Your task to perform on an android device: turn on location history Image 0: 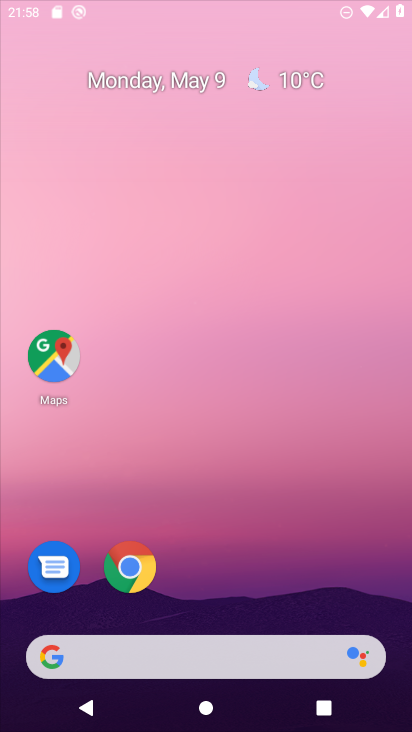
Step 0: drag from (297, 500) to (312, 43)
Your task to perform on an android device: turn on location history Image 1: 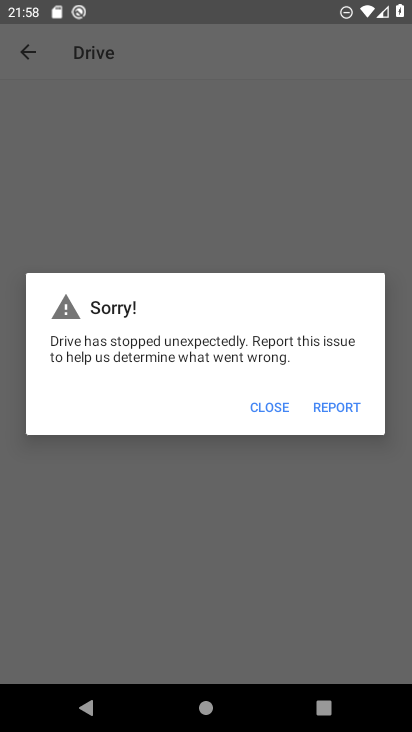
Step 1: press home button
Your task to perform on an android device: turn on location history Image 2: 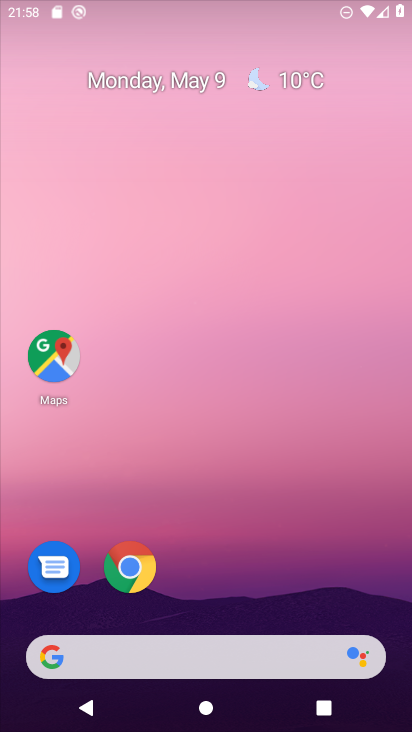
Step 2: drag from (217, 501) to (250, 59)
Your task to perform on an android device: turn on location history Image 3: 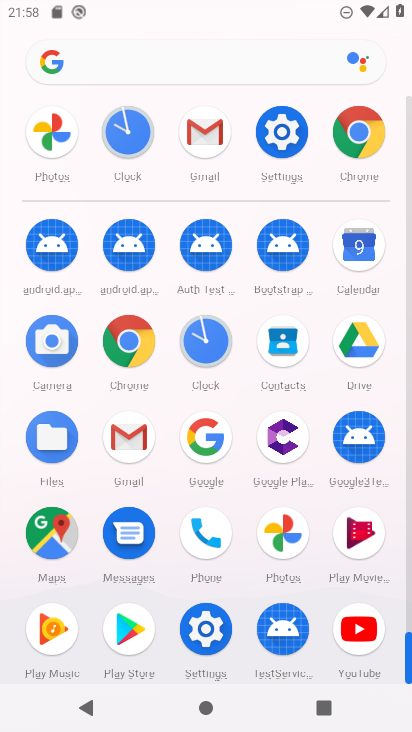
Step 3: click (288, 136)
Your task to perform on an android device: turn on location history Image 4: 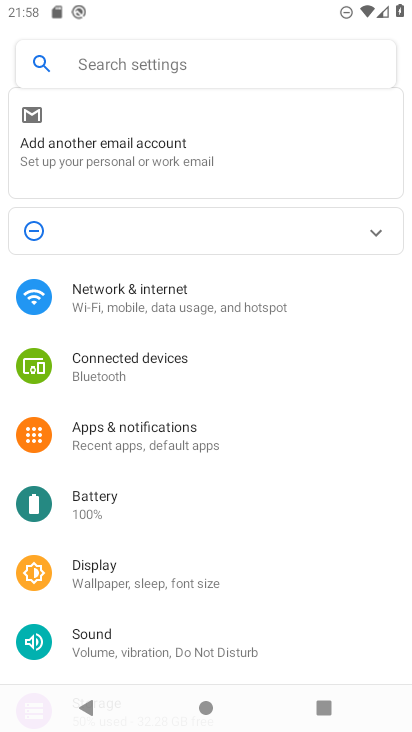
Step 4: drag from (240, 552) to (250, 91)
Your task to perform on an android device: turn on location history Image 5: 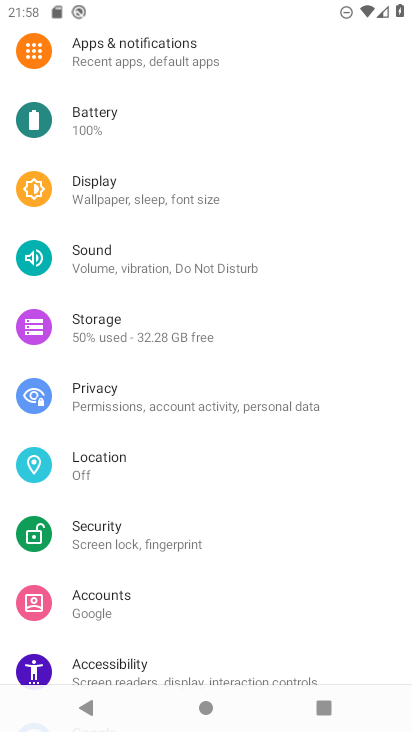
Step 5: click (131, 465)
Your task to perform on an android device: turn on location history Image 6: 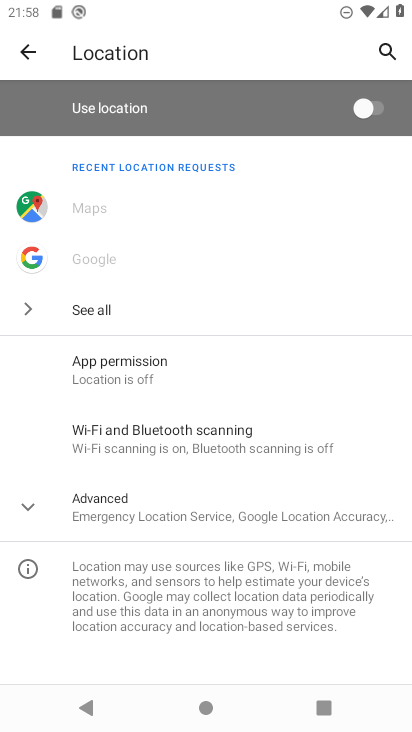
Step 6: click (25, 497)
Your task to perform on an android device: turn on location history Image 7: 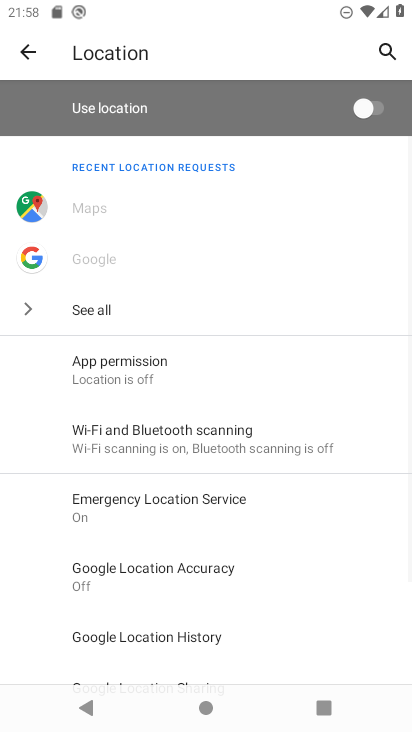
Step 7: drag from (225, 606) to (289, 312)
Your task to perform on an android device: turn on location history Image 8: 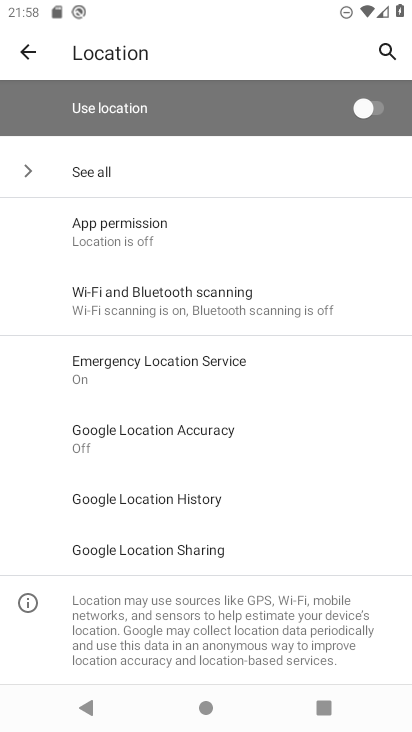
Step 8: click (179, 498)
Your task to perform on an android device: turn on location history Image 9: 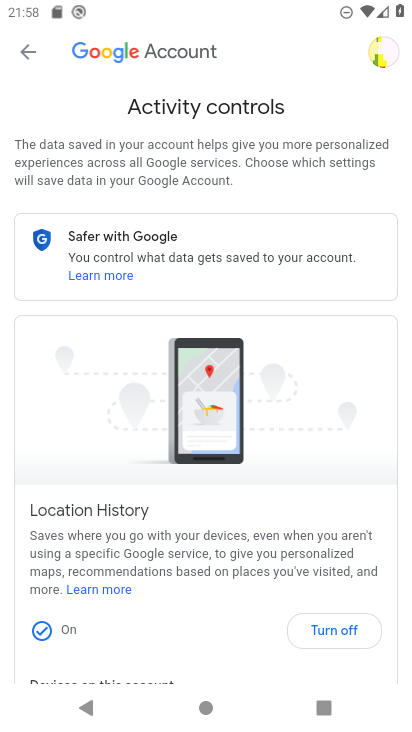
Step 9: task complete